Your task to perform on an android device: Go to wifi settings Image 0: 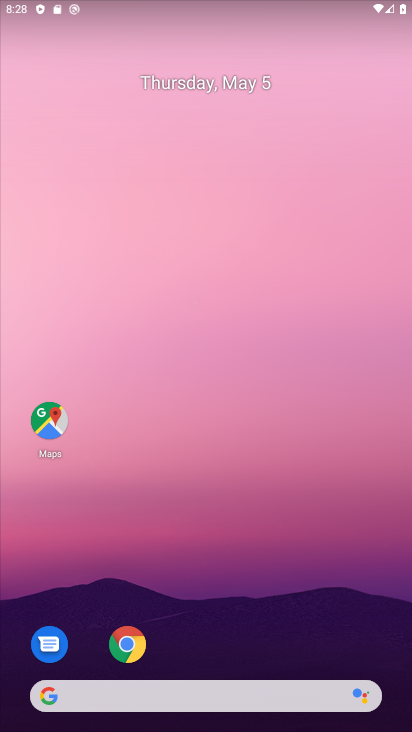
Step 0: drag from (300, 598) to (372, 48)
Your task to perform on an android device: Go to wifi settings Image 1: 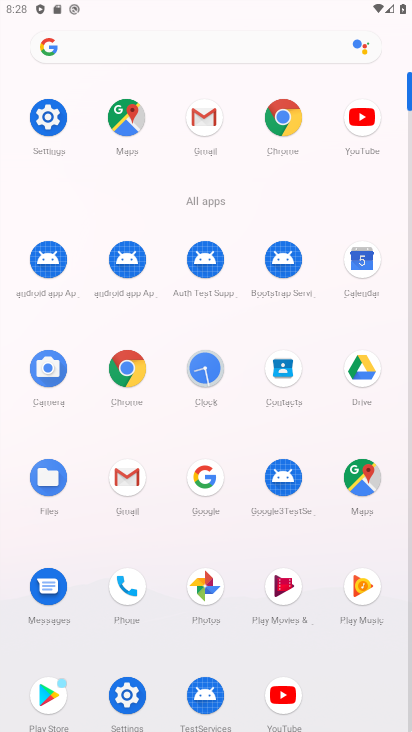
Step 1: click (30, 123)
Your task to perform on an android device: Go to wifi settings Image 2: 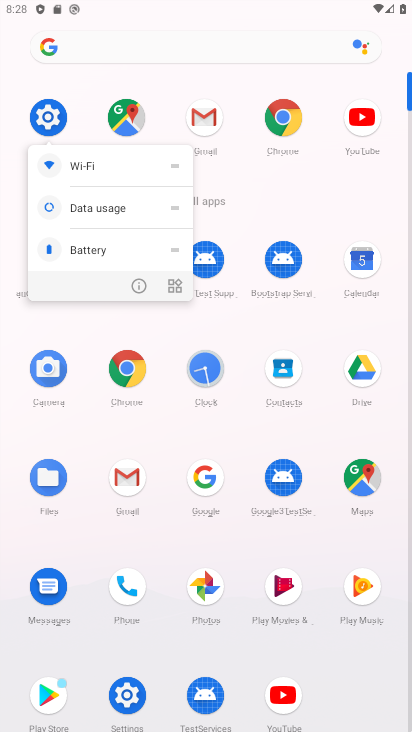
Step 2: click (56, 125)
Your task to perform on an android device: Go to wifi settings Image 3: 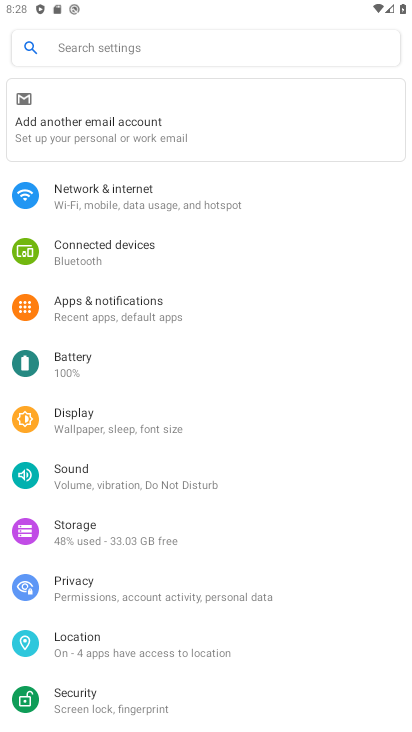
Step 3: click (133, 195)
Your task to perform on an android device: Go to wifi settings Image 4: 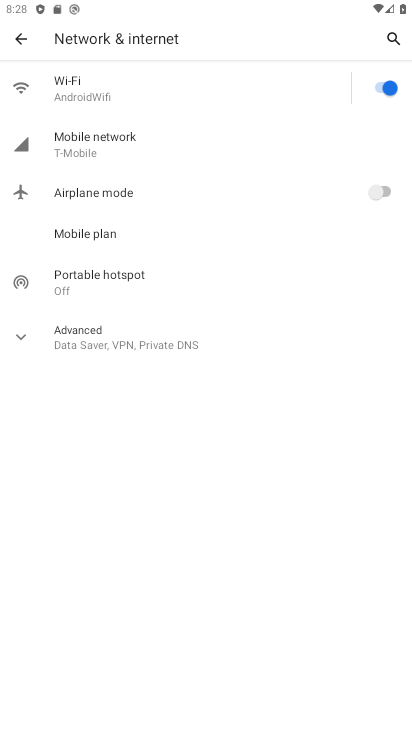
Step 4: click (109, 102)
Your task to perform on an android device: Go to wifi settings Image 5: 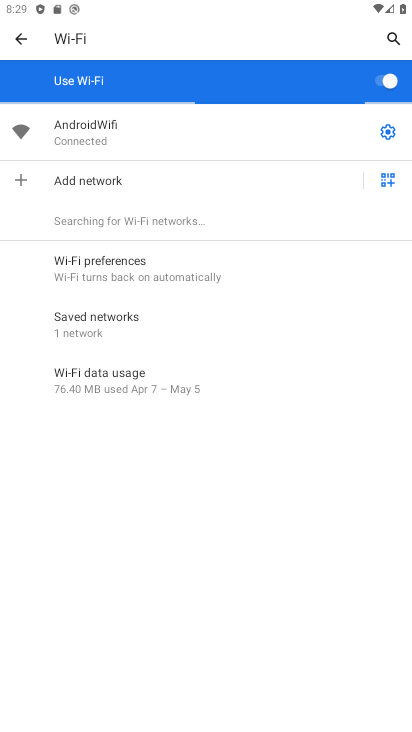
Step 5: task complete